Your task to perform on an android device: Open wifi settings Image 0: 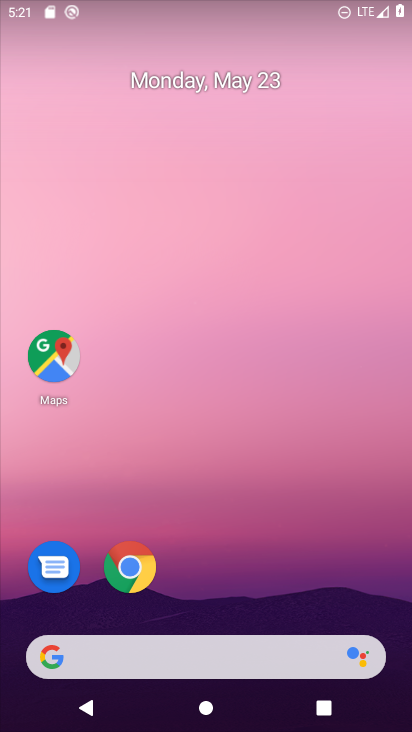
Step 0: drag from (267, 583) to (241, 145)
Your task to perform on an android device: Open wifi settings Image 1: 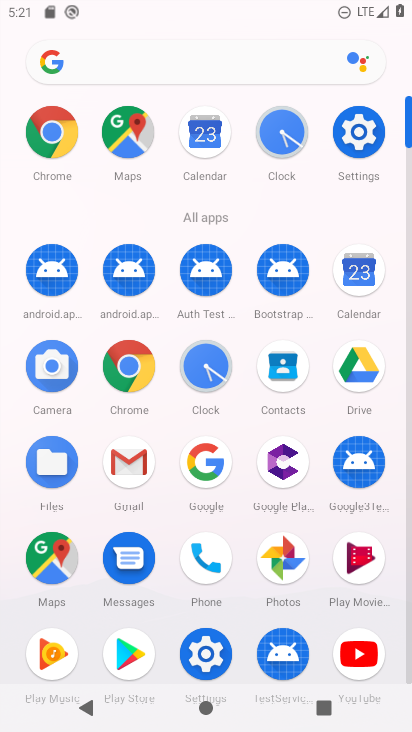
Step 1: click (359, 128)
Your task to perform on an android device: Open wifi settings Image 2: 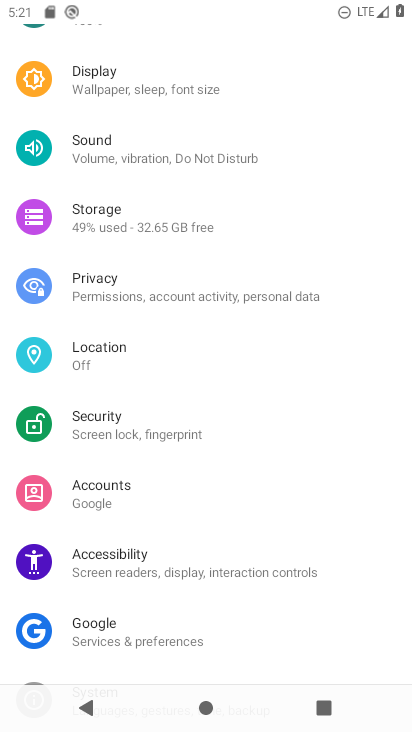
Step 2: drag from (238, 130) to (224, 277)
Your task to perform on an android device: Open wifi settings Image 3: 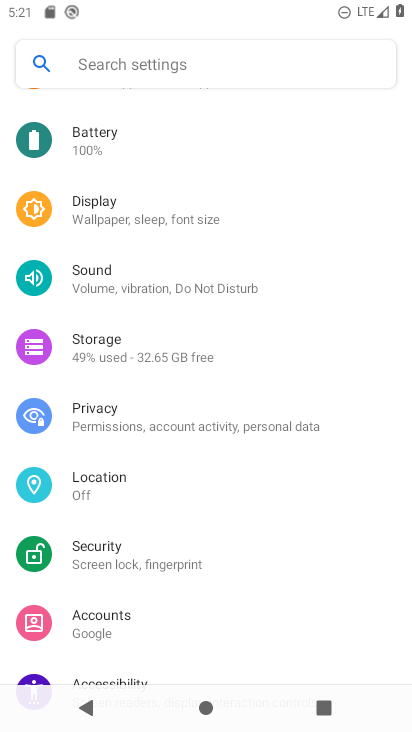
Step 3: drag from (205, 178) to (204, 360)
Your task to perform on an android device: Open wifi settings Image 4: 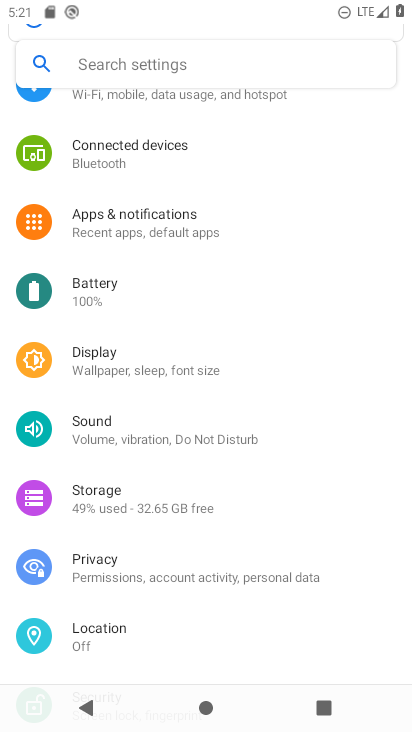
Step 4: drag from (206, 188) to (239, 356)
Your task to perform on an android device: Open wifi settings Image 5: 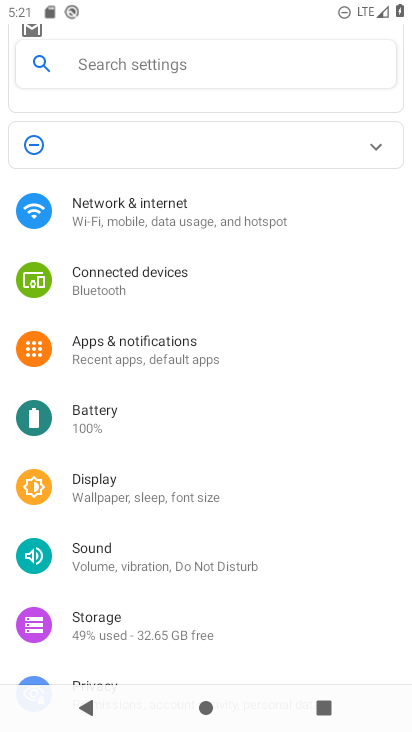
Step 5: click (188, 208)
Your task to perform on an android device: Open wifi settings Image 6: 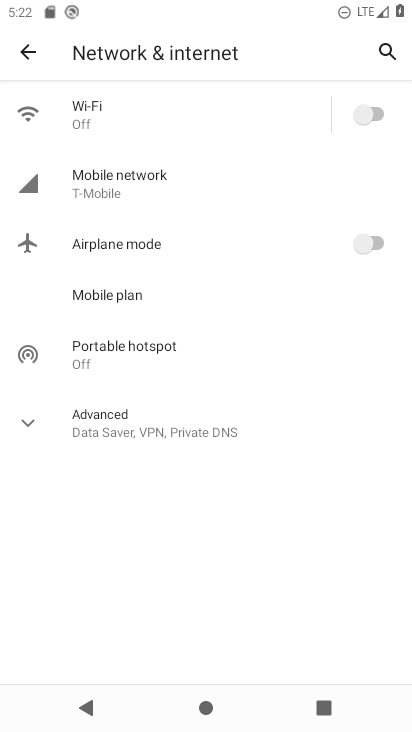
Step 6: click (100, 107)
Your task to perform on an android device: Open wifi settings Image 7: 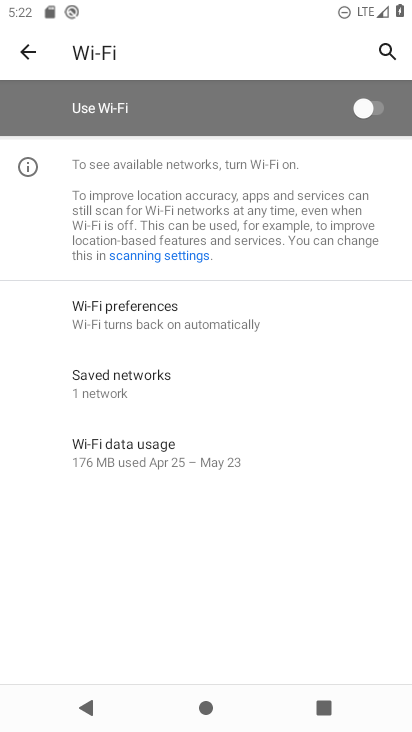
Step 7: task complete